Your task to perform on an android device: change the clock display to show seconds Image 0: 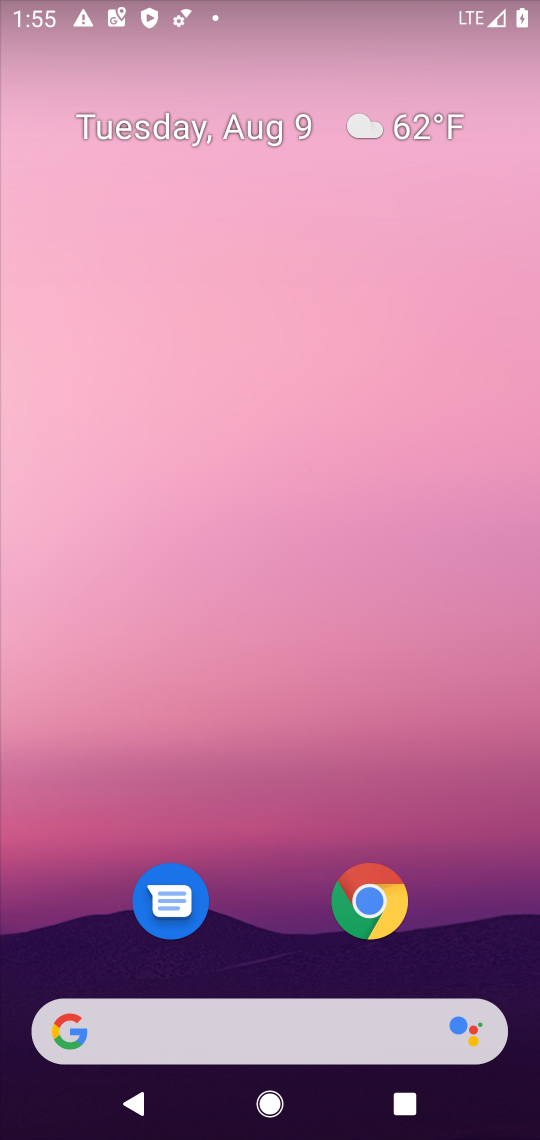
Step 0: drag from (502, 952) to (474, 161)
Your task to perform on an android device: change the clock display to show seconds Image 1: 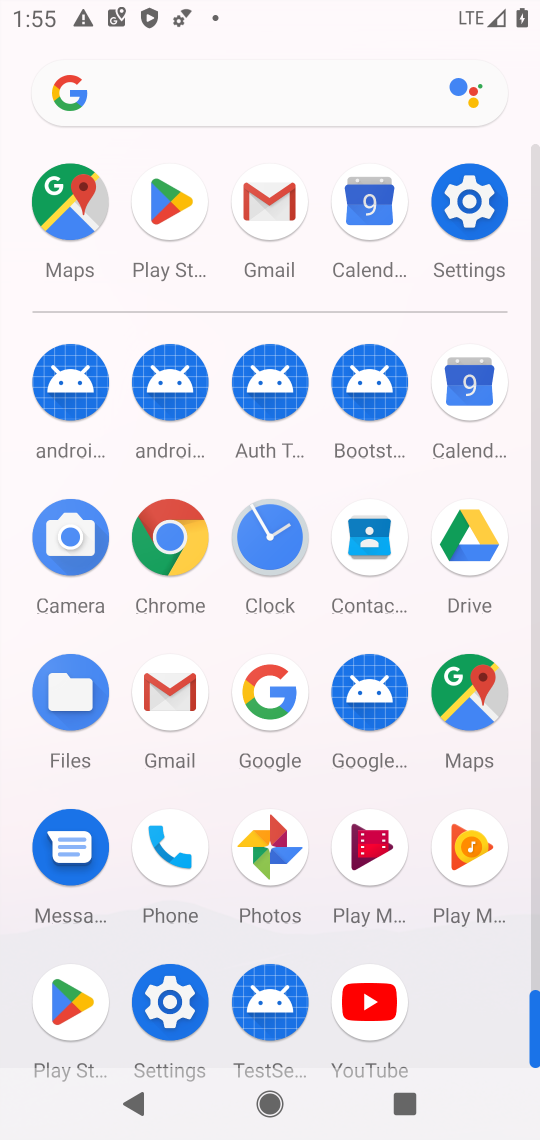
Step 1: click (270, 536)
Your task to perform on an android device: change the clock display to show seconds Image 2: 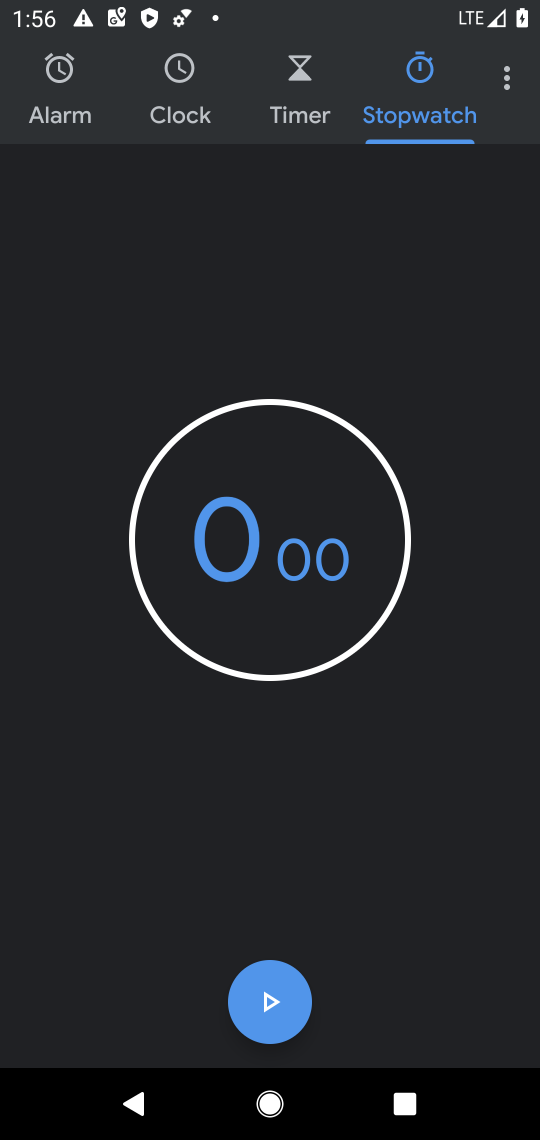
Step 2: click (505, 98)
Your task to perform on an android device: change the clock display to show seconds Image 3: 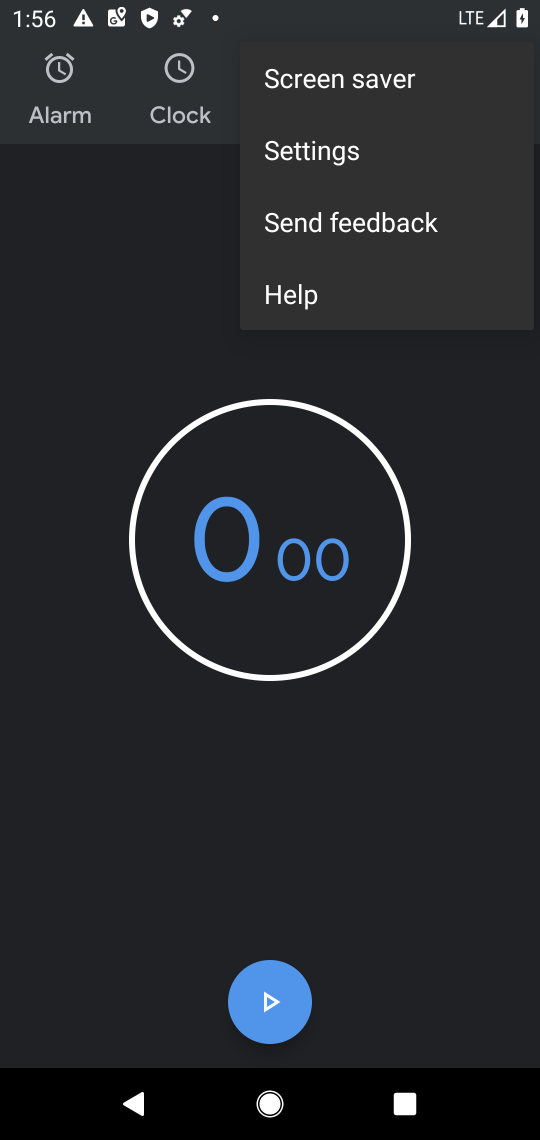
Step 3: click (282, 146)
Your task to perform on an android device: change the clock display to show seconds Image 4: 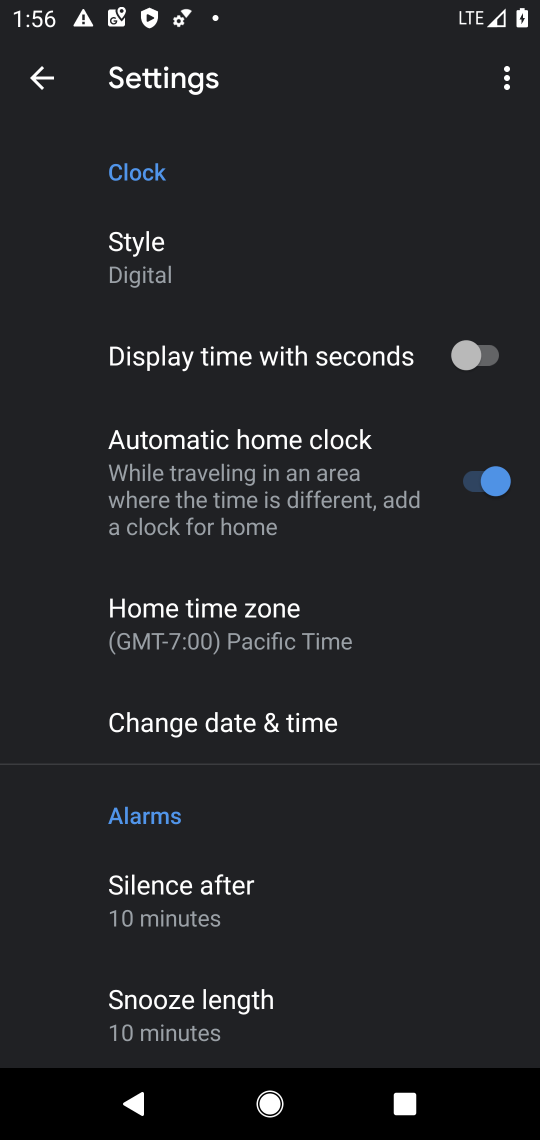
Step 4: click (495, 356)
Your task to perform on an android device: change the clock display to show seconds Image 5: 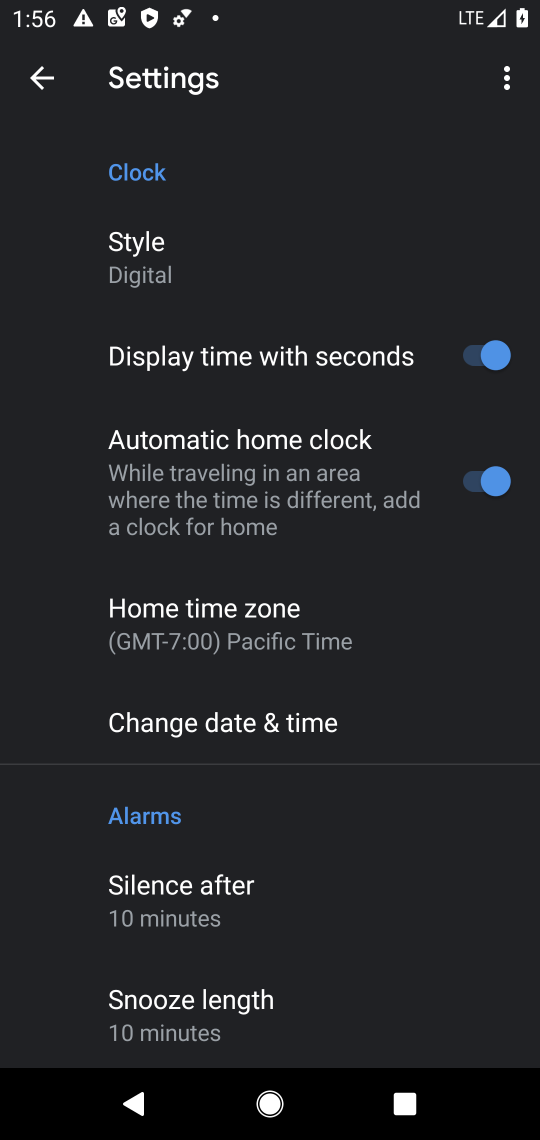
Step 5: task complete